Your task to perform on an android device: Check the news Image 0: 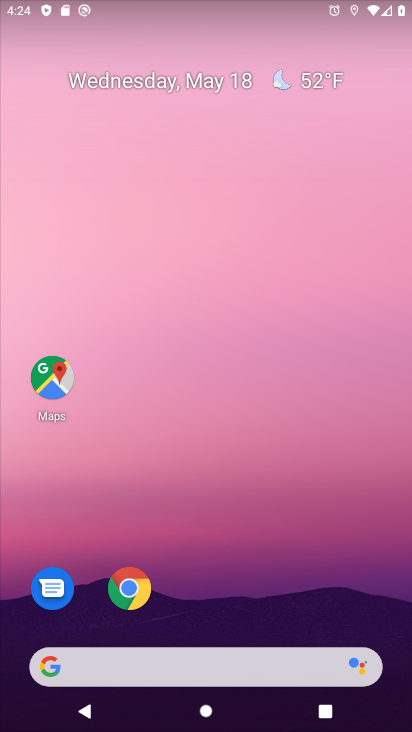
Step 0: drag from (321, 531) to (340, 49)
Your task to perform on an android device: Check the news Image 1: 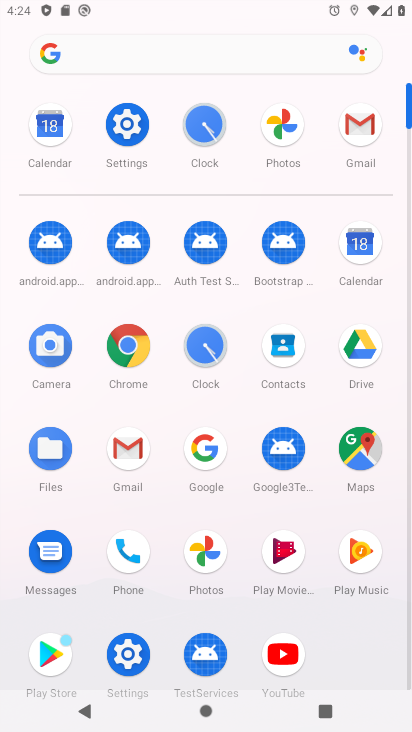
Step 1: click (135, 343)
Your task to perform on an android device: Check the news Image 2: 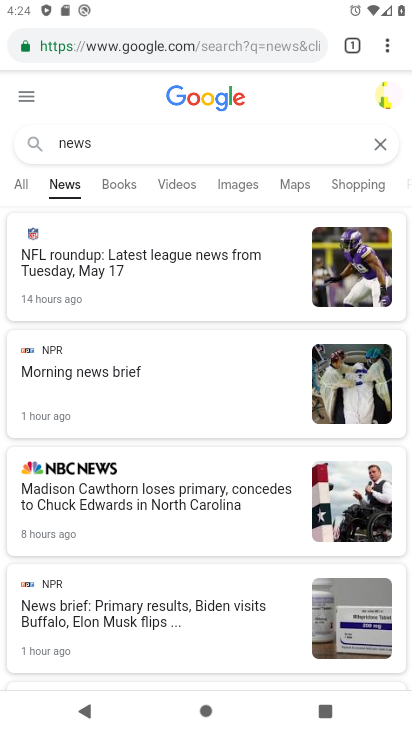
Step 2: task complete